Your task to perform on an android device: check storage Image 0: 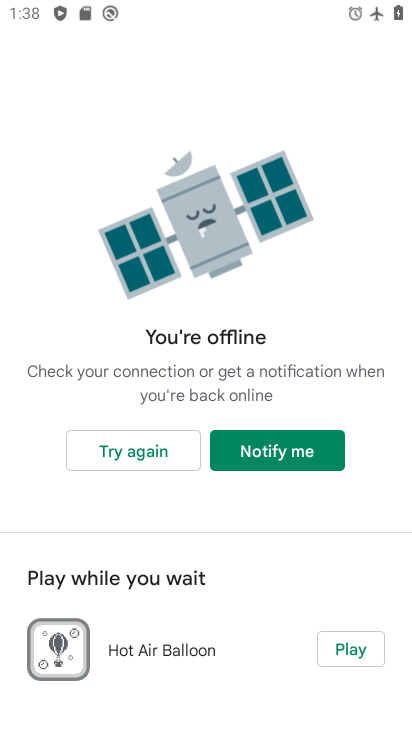
Step 0: press home button
Your task to perform on an android device: check storage Image 1: 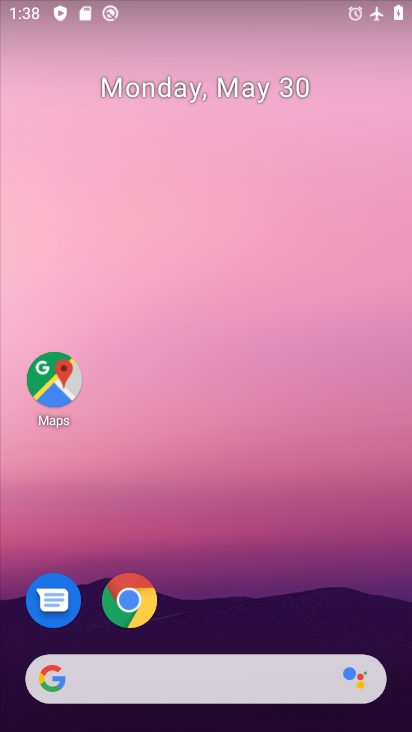
Step 1: drag from (226, 648) to (192, 46)
Your task to perform on an android device: check storage Image 2: 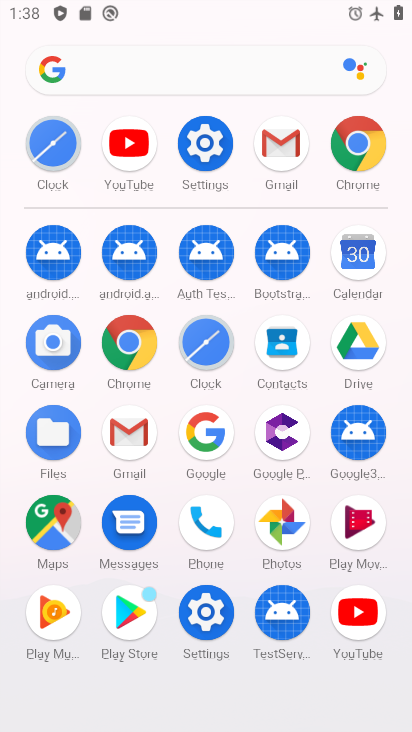
Step 2: click (197, 622)
Your task to perform on an android device: check storage Image 3: 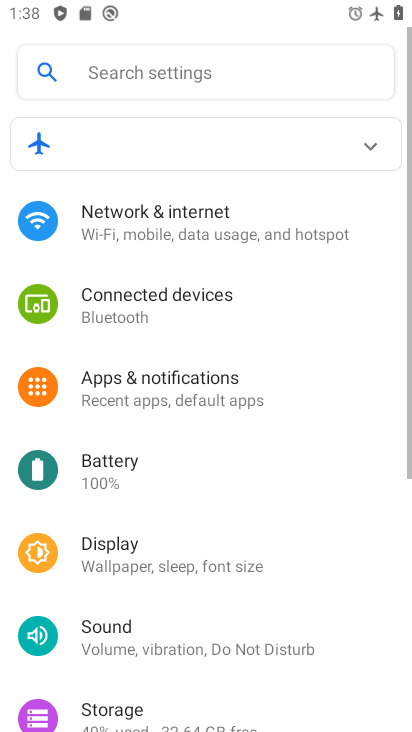
Step 3: drag from (225, 656) to (218, 360)
Your task to perform on an android device: check storage Image 4: 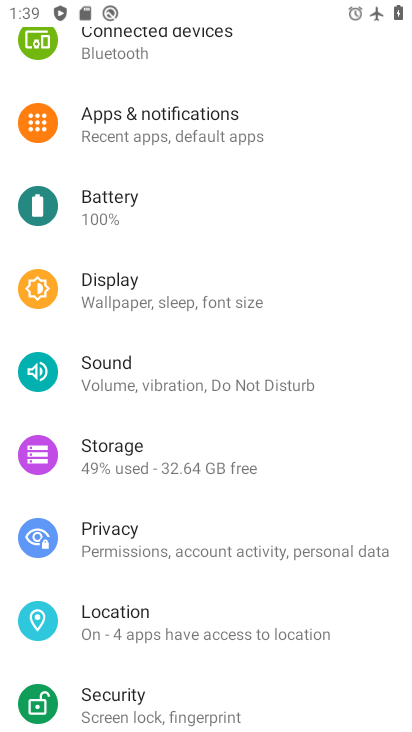
Step 4: click (154, 467)
Your task to perform on an android device: check storage Image 5: 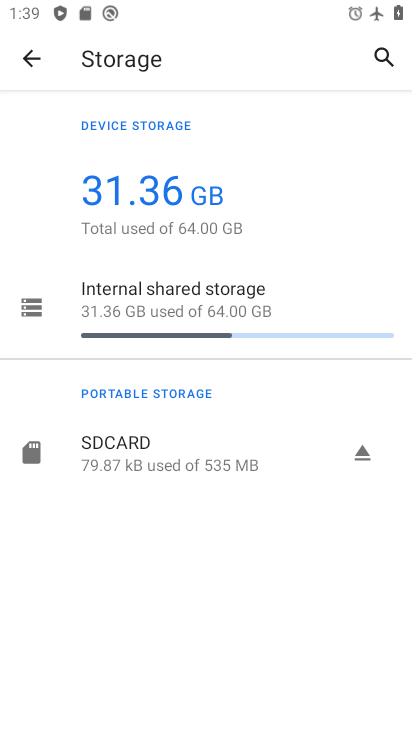
Step 5: click (176, 299)
Your task to perform on an android device: check storage Image 6: 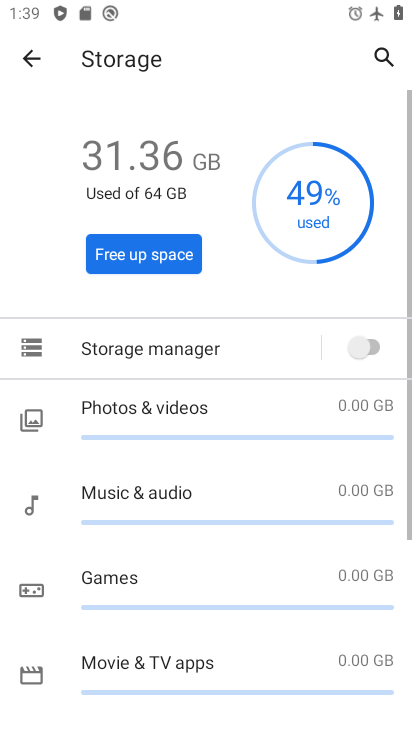
Step 6: task complete